Your task to perform on an android device: Go to Yahoo.com Image 0: 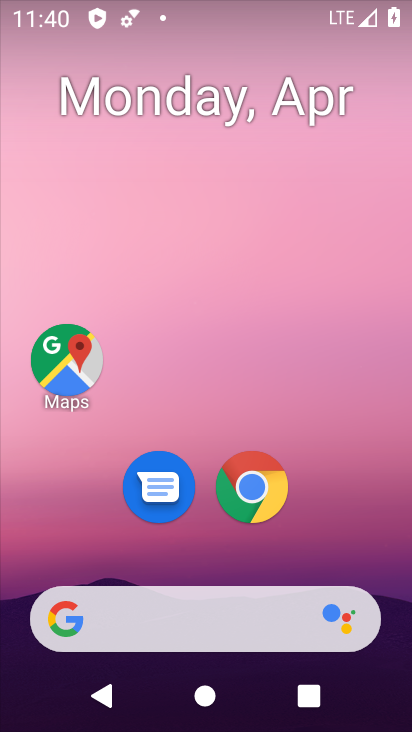
Step 0: drag from (377, 494) to (322, 94)
Your task to perform on an android device: Go to Yahoo.com Image 1: 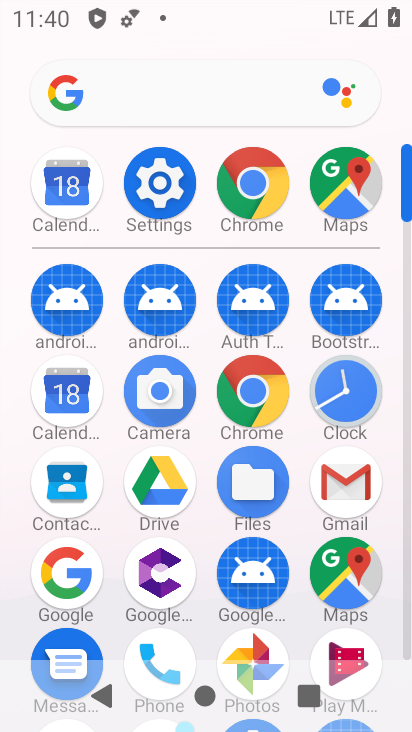
Step 1: click (249, 175)
Your task to perform on an android device: Go to Yahoo.com Image 2: 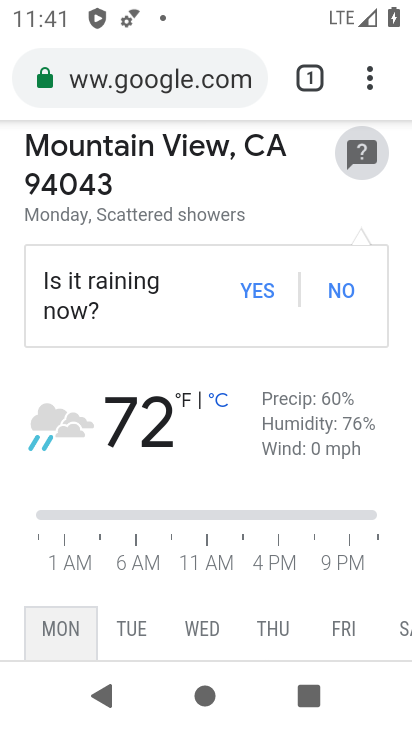
Step 2: click (193, 93)
Your task to perform on an android device: Go to Yahoo.com Image 3: 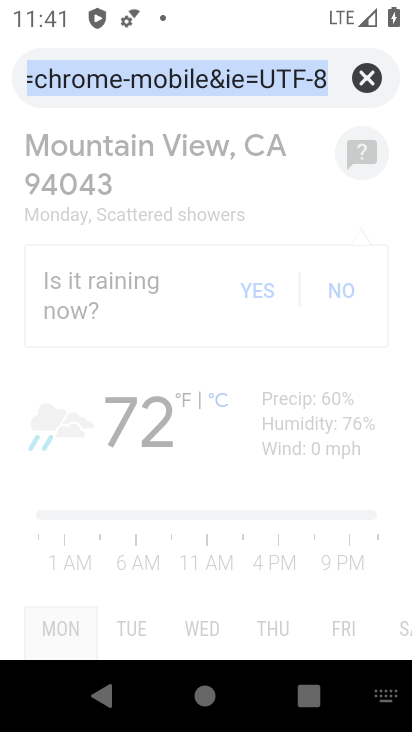
Step 3: type "yahoo"
Your task to perform on an android device: Go to Yahoo.com Image 4: 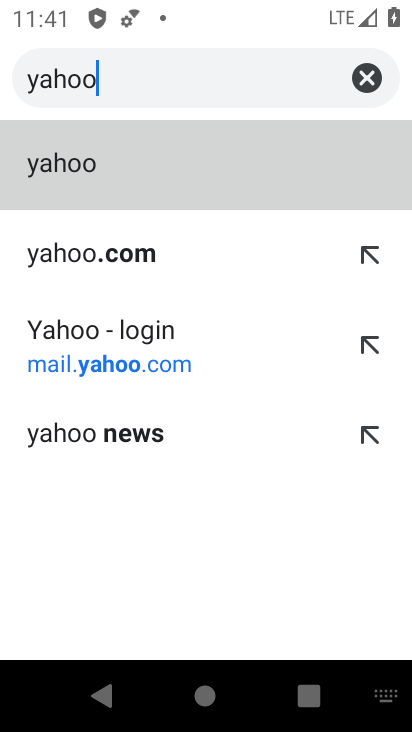
Step 4: click (263, 240)
Your task to perform on an android device: Go to Yahoo.com Image 5: 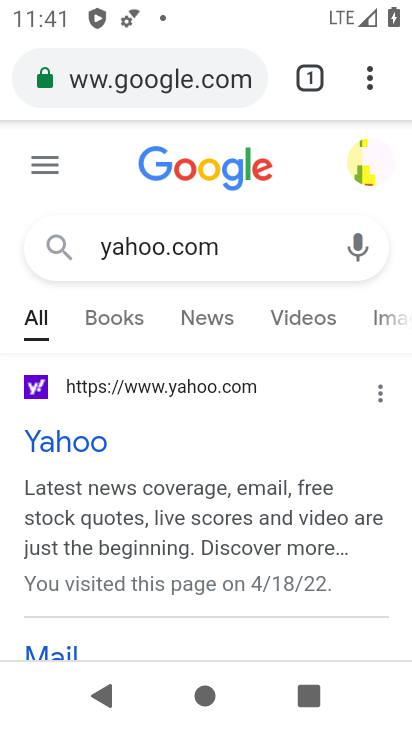
Step 5: click (48, 451)
Your task to perform on an android device: Go to Yahoo.com Image 6: 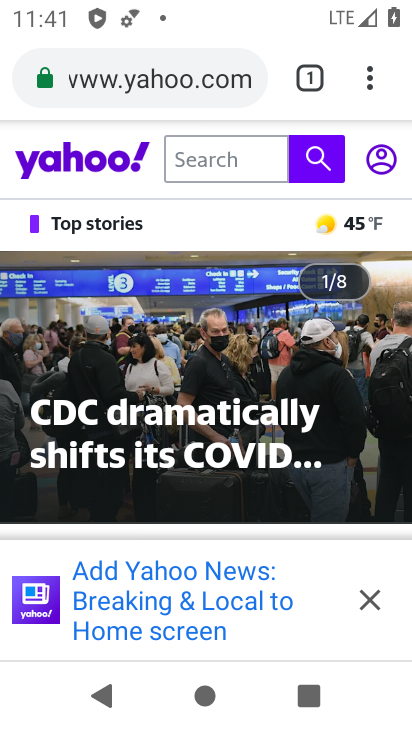
Step 6: task complete